Your task to perform on an android device: Go to ESPN.com Image 0: 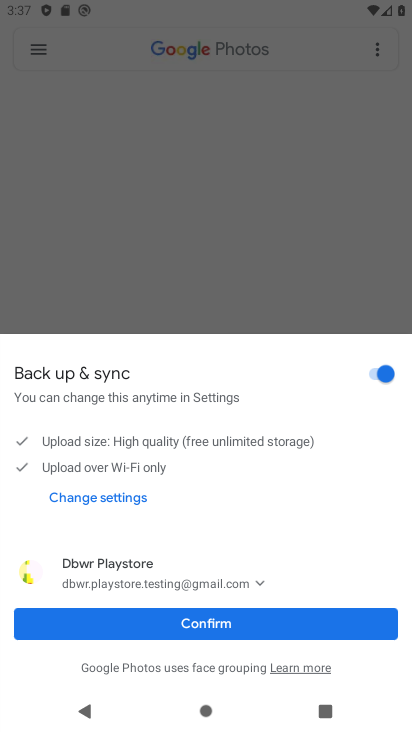
Step 0: press home button
Your task to perform on an android device: Go to ESPN.com Image 1: 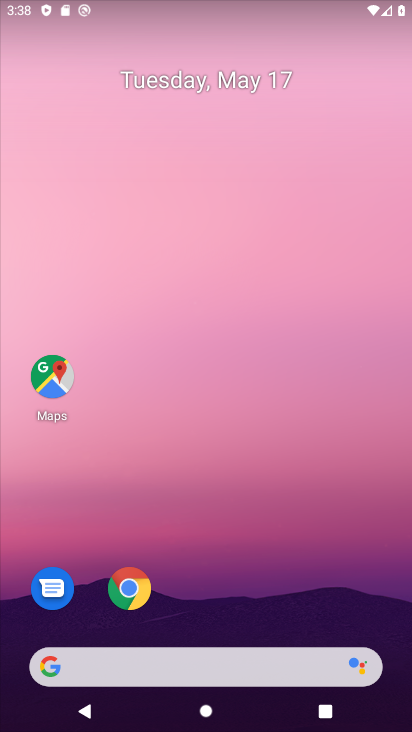
Step 1: click (131, 590)
Your task to perform on an android device: Go to ESPN.com Image 2: 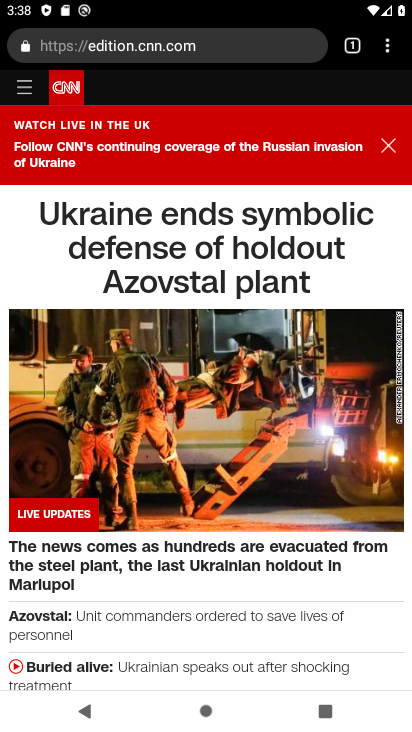
Step 2: click (253, 48)
Your task to perform on an android device: Go to ESPN.com Image 3: 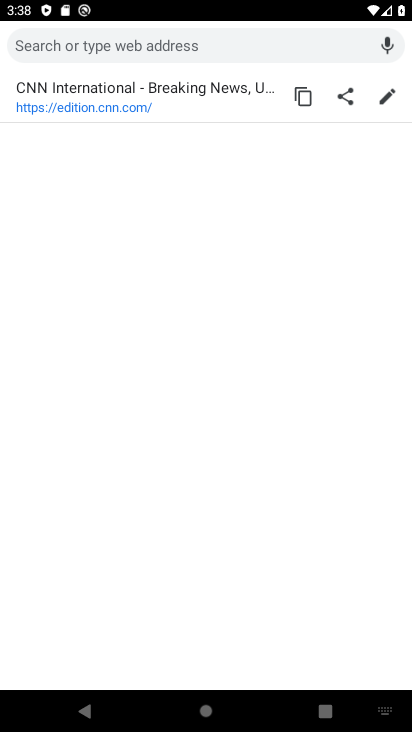
Step 3: type "ESPN.com"
Your task to perform on an android device: Go to ESPN.com Image 4: 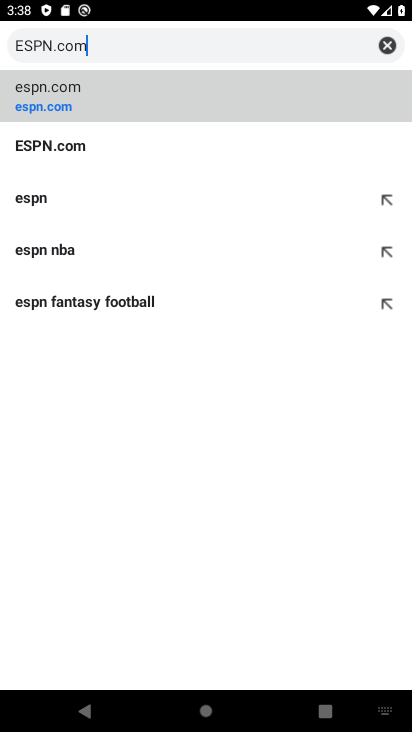
Step 4: type ""
Your task to perform on an android device: Go to ESPN.com Image 5: 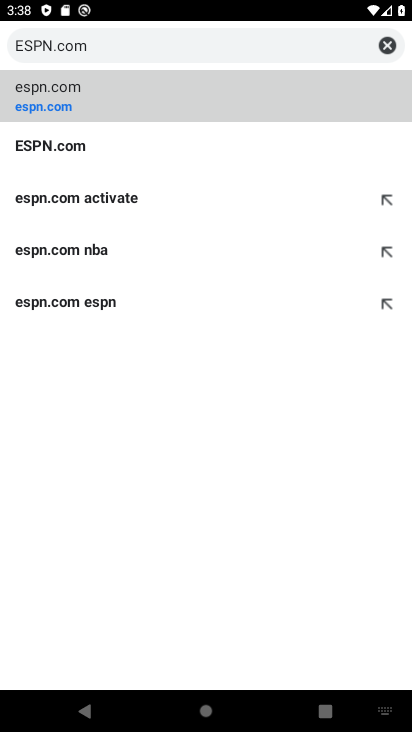
Step 5: click (73, 144)
Your task to perform on an android device: Go to ESPN.com Image 6: 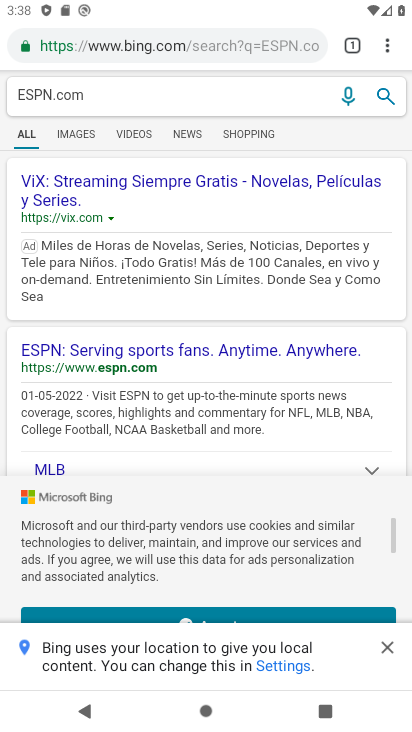
Step 6: click (219, 347)
Your task to perform on an android device: Go to ESPN.com Image 7: 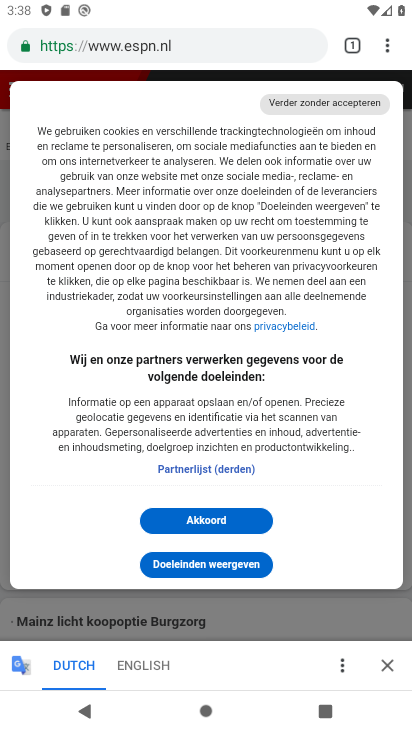
Step 7: task complete